Your task to perform on an android device: open a new tab in the chrome app Image 0: 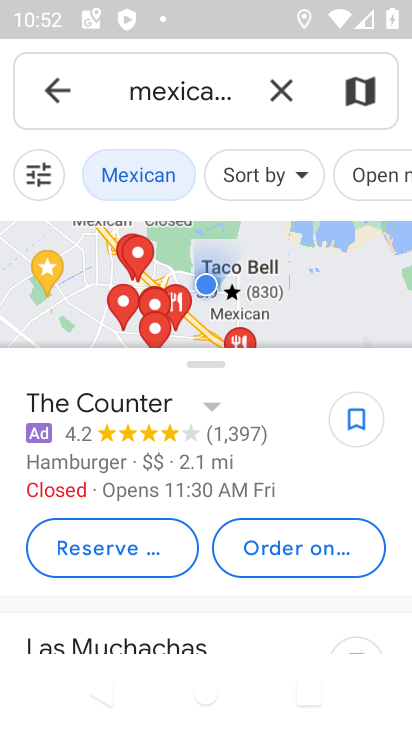
Step 0: press home button
Your task to perform on an android device: open a new tab in the chrome app Image 1: 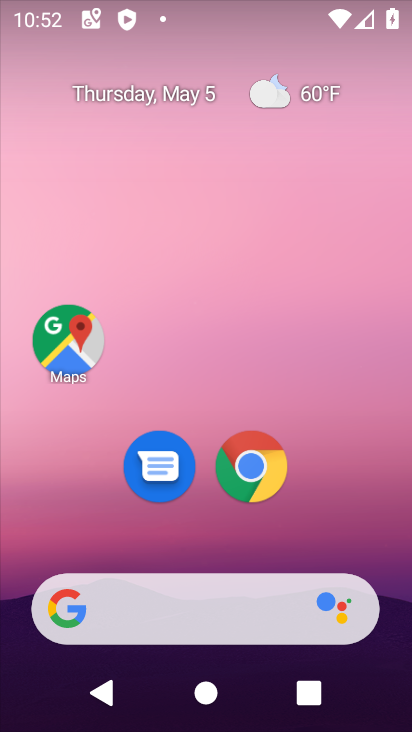
Step 1: click (243, 470)
Your task to perform on an android device: open a new tab in the chrome app Image 2: 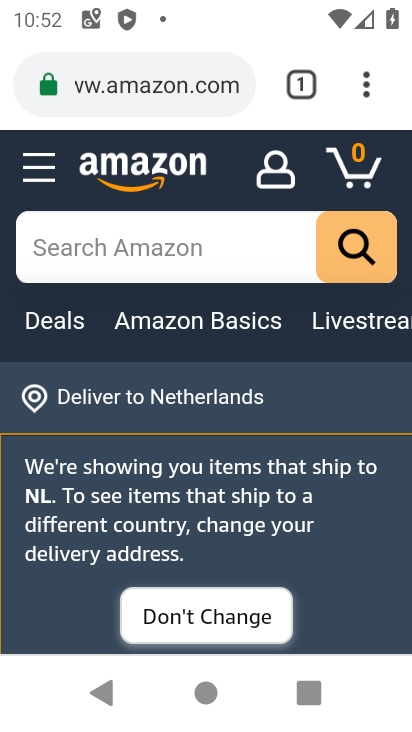
Step 2: click (362, 87)
Your task to perform on an android device: open a new tab in the chrome app Image 3: 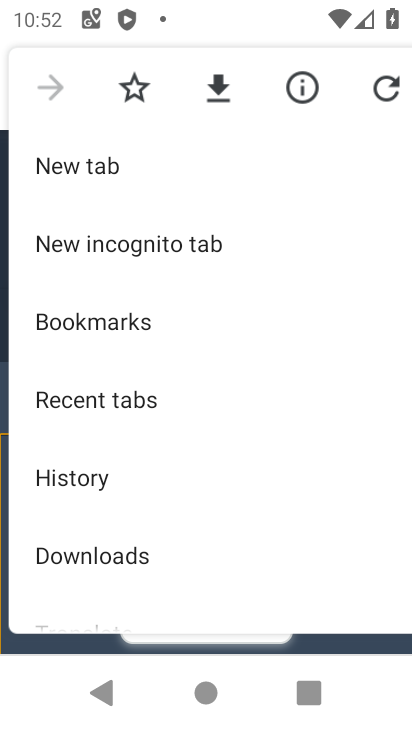
Step 3: click (109, 167)
Your task to perform on an android device: open a new tab in the chrome app Image 4: 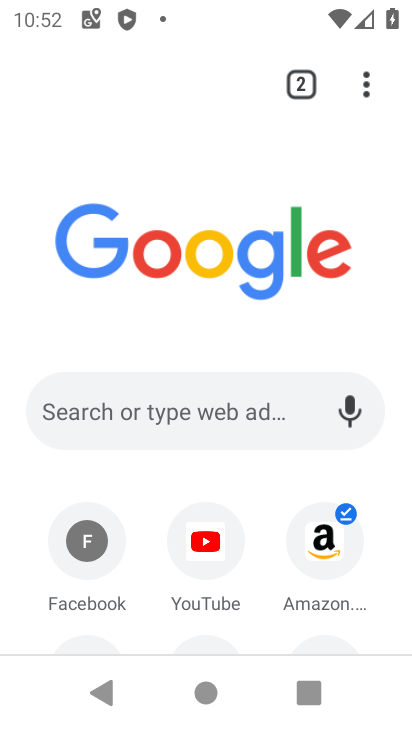
Step 4: task complete